Your task to perform on an android device: Open location settings Image 0: 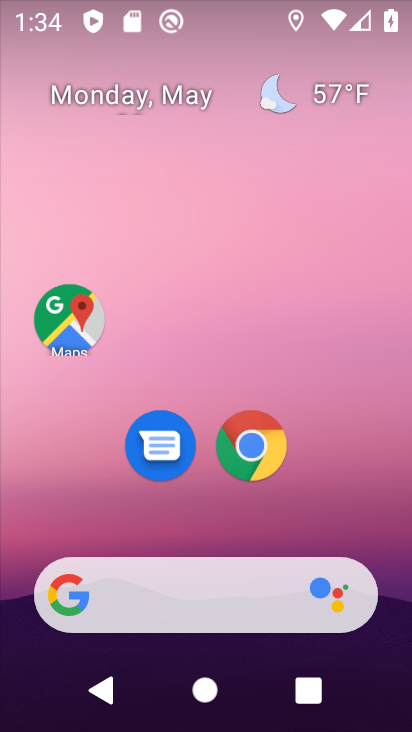
Step 0: drag from (226, 515) to (197, 99)
Your task to perform on an android device: Open location settings Image 1: 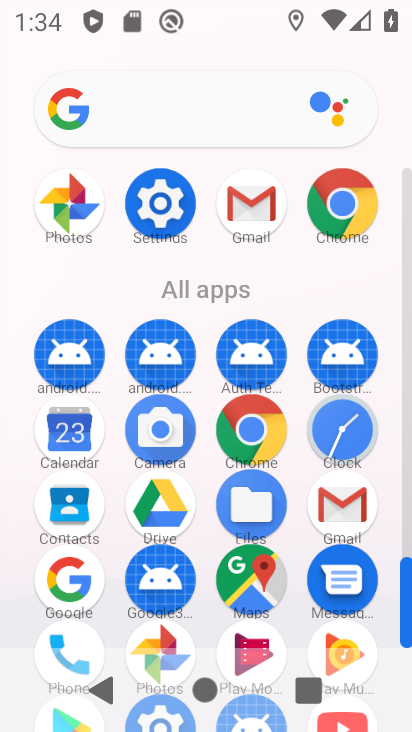
Step 1: click (151, 191)
Your task to perform on an android device: Open location settings Image 2: 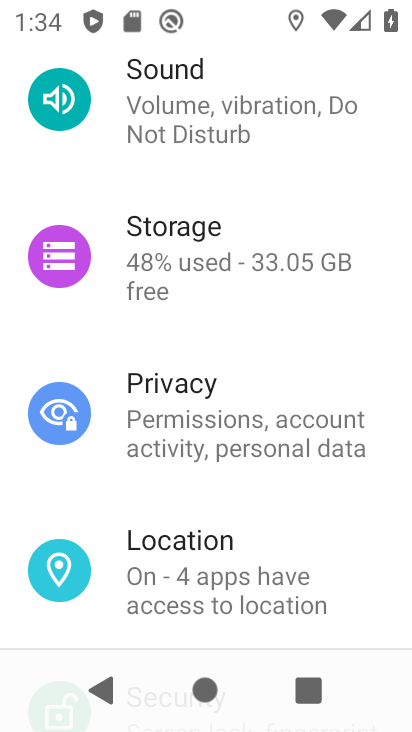
Step 2: click (188, 570)
Your task to perform on an android device: Open location settings Image 3: 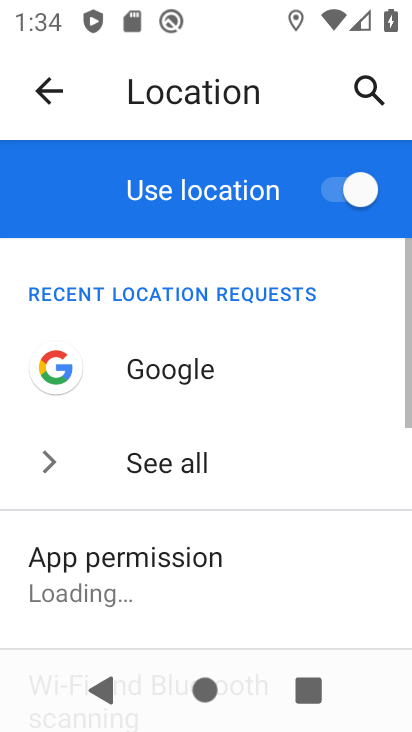
Step 3: task complete